Your task to perform on an android device: open a bookmark in the chrome app Image 0: 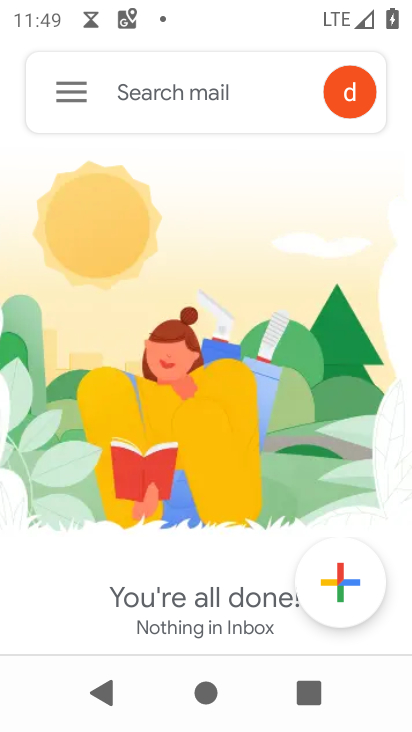
Step 0: press home button
Your task to perform on an android device: open a bookmark in the chrome app Image 1: 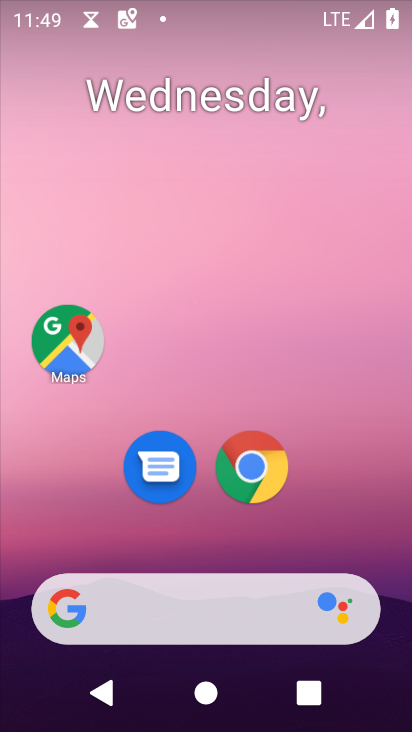
Step 1: click (248, 481)
Your task to perform on an android device: open a bookmark in the chrome app Image 2: 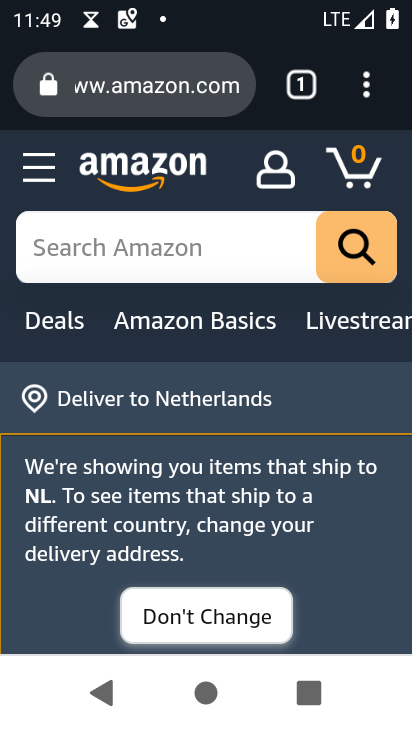
Step 2: task complete